Your task to perform on an android device: set default search engine in the chrome app Image 0: 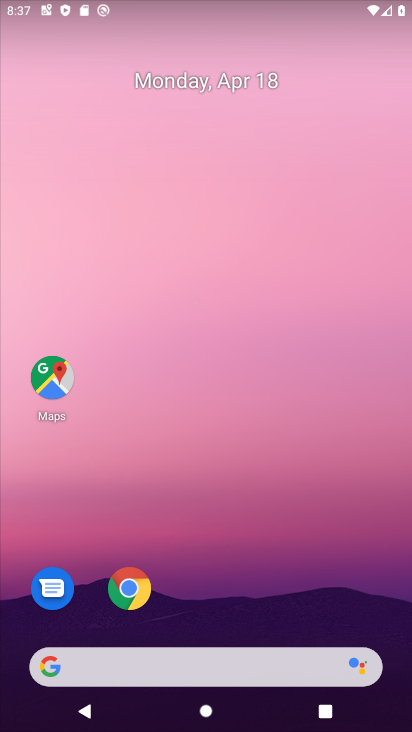
Step 0: drag from (207, 493) to (267, 43)
Your task to perform on an android device: set default search engine in the chrome app Image 1: 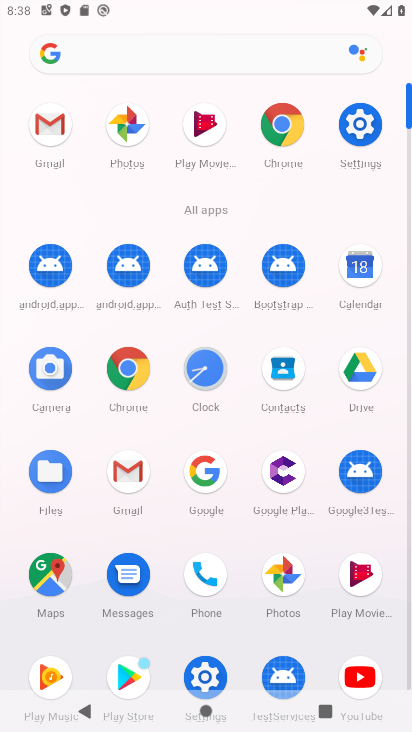
Step 1: click (272, 118)
Your task to perform on an android device: set default search engine in the chrome app Image 2: 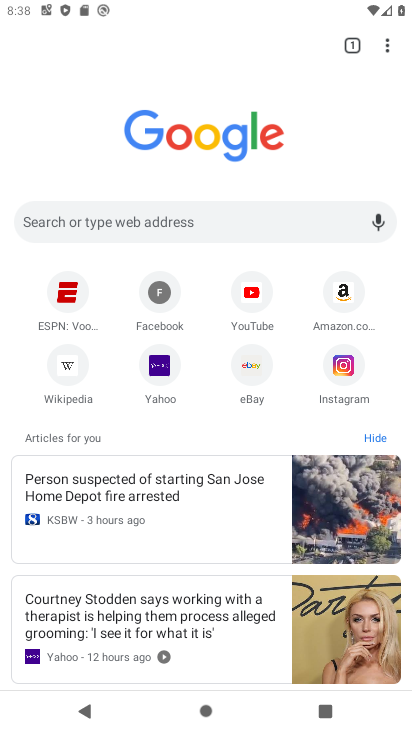
Step 2: click (385, 39)
Your task to perform on an android device: set default search engine in the chrome app Image 3: 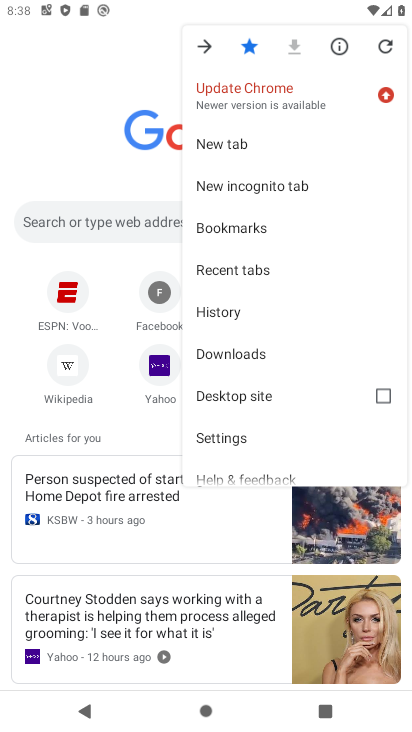
Step 3: click (250, 438)
Your task to perform on an android device: set default search engine in the chrome app Image 4: 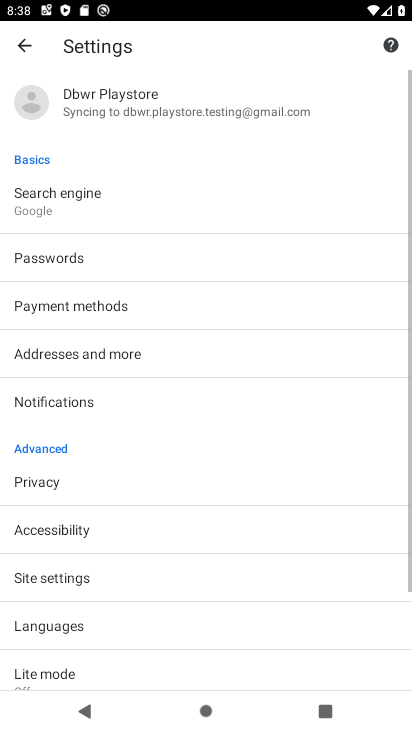
Step 4: click (72, 219)
Your task to perform on an android device: set default search engine in the chrome app Image 5: 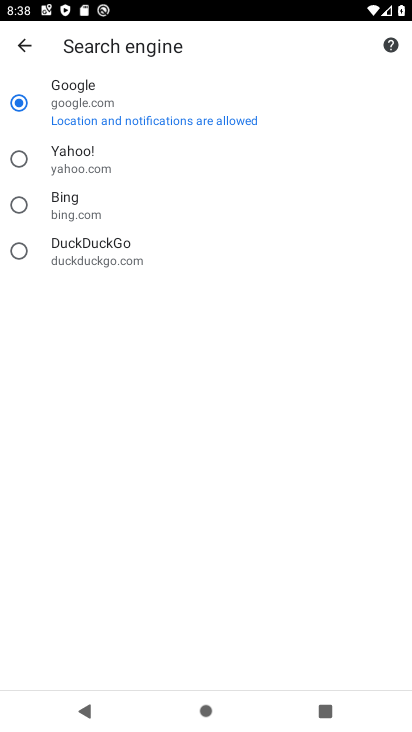
Step 5: click (71, 220)
Your task to perform on an android device: set default search engine in the chrome app Image 6: 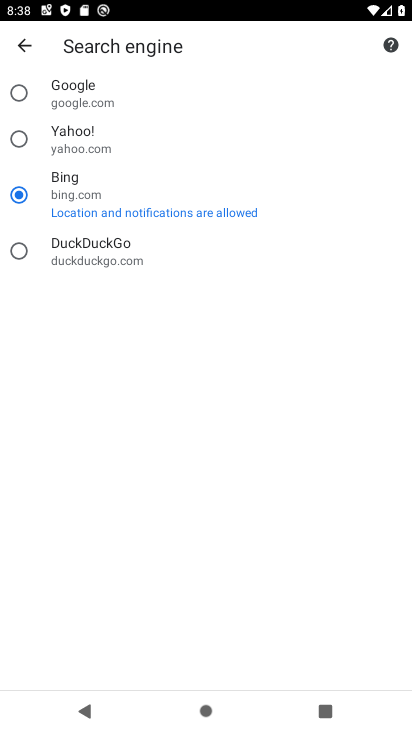
Step 6: task complete